Your task to perform on an android device: Open network settings Image 0: 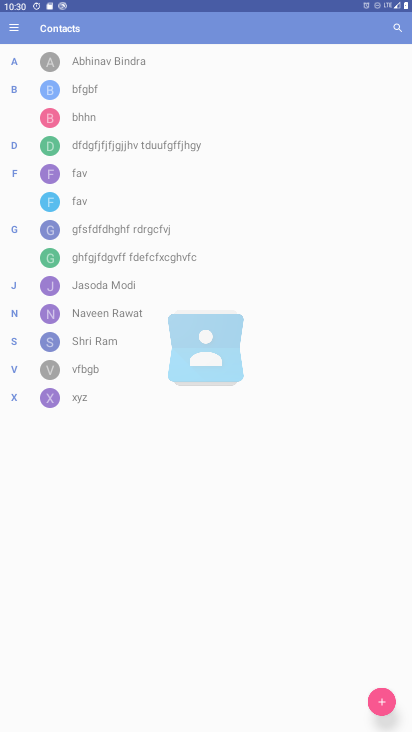
Step 0: press home button
Your task to perform on an android device: Open network settings Image 1: 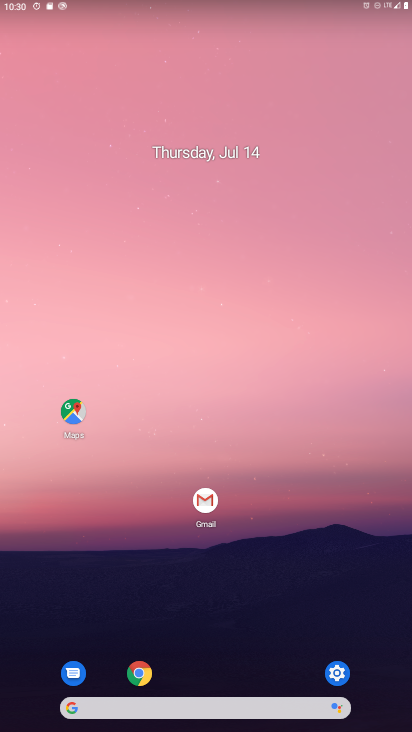
Step 1: click (333, 672)
Your task to perform on an android device: Open network settings Image 2: 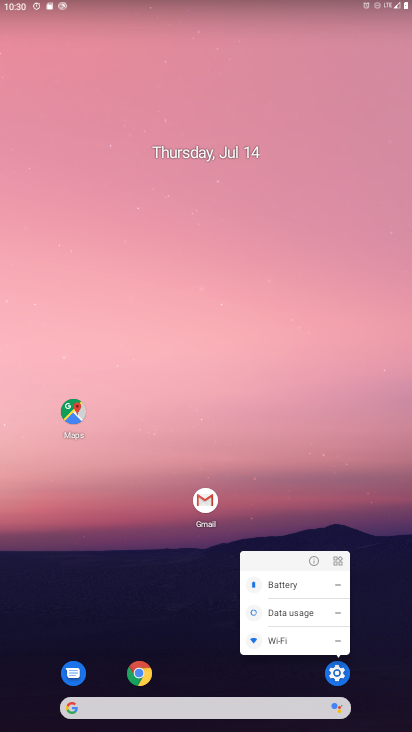
Step 2: click (340, 673)
Your task to perform on an android device: Open network settings Image 3: 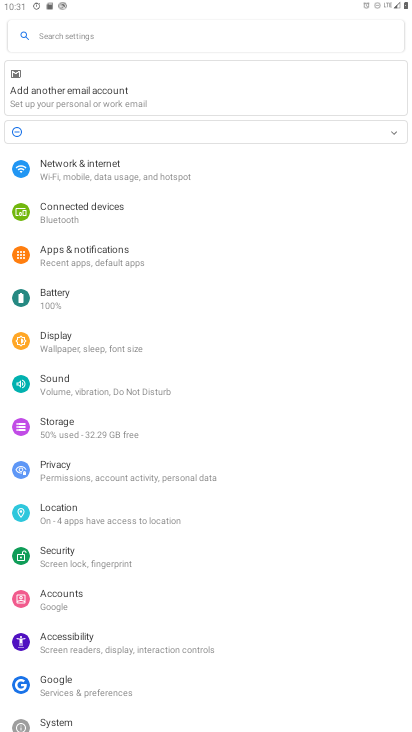
Step 3: click (75, 167)
Your task to perform on an android device: Open network settings Image 4: 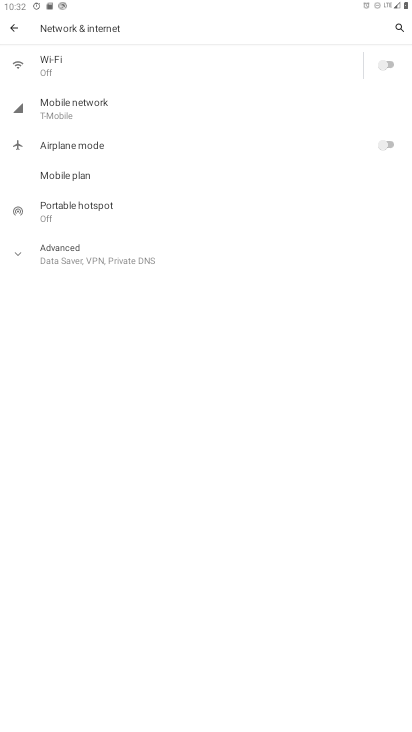
Step 4: task complete